Your task to perform on an android device: Show me recent news Image 0: 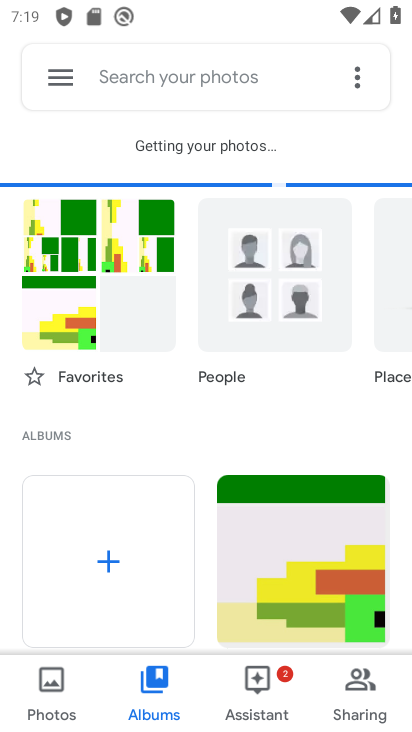
Step 0: press home button
Your task to perform on an android device: Show me recent news Image 1: 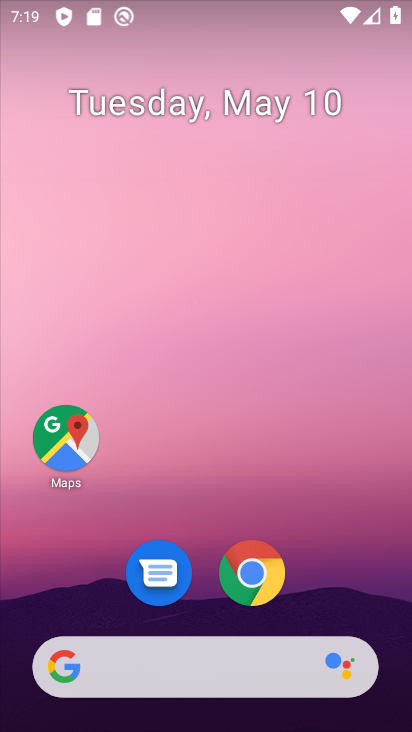
Step 1: drag from (354, 532) to (321, 146)
Your task to perform on an android device: Show me recent news Image 2: 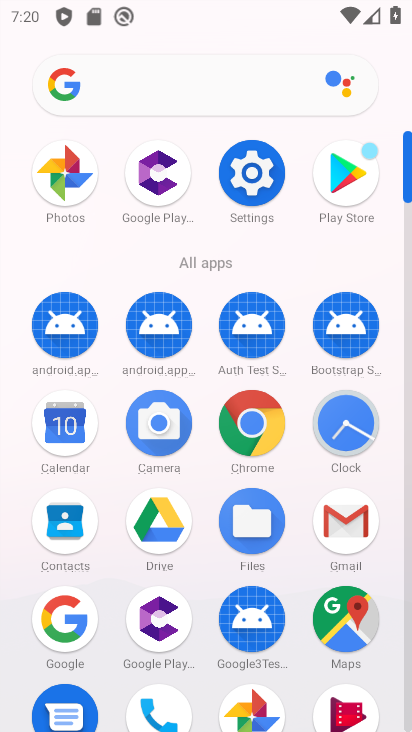
Step 2: drag from (302, 641) to (279, 358)
Your task to perform on an android device: Show me recent news Image 3: 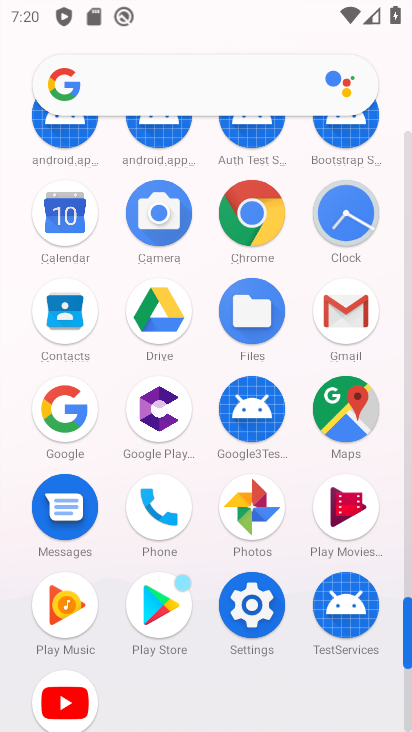
Step 3: click (260, 230)
Your task to perform on an android device: Show me recent news Image 4: 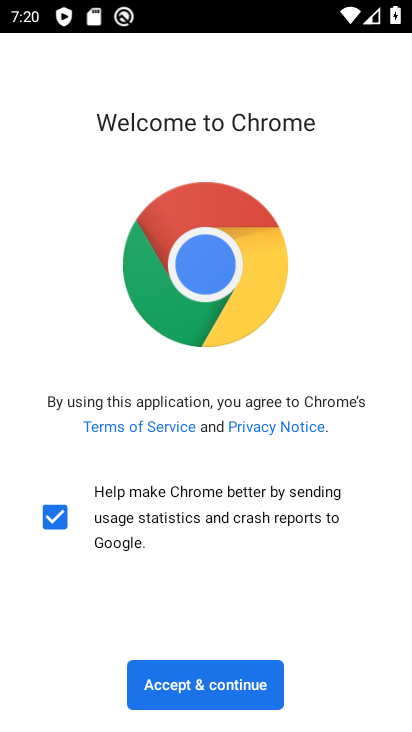
Step 4: click (241, 694)
Your task to perform on an android device: Show me recent news Image 5: 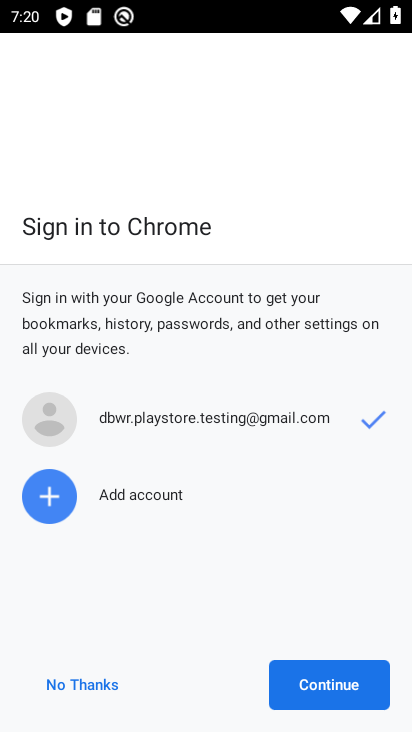
Step 5: click (310, 692)
Your task to perform on an android device: Show me recent news Image 6: 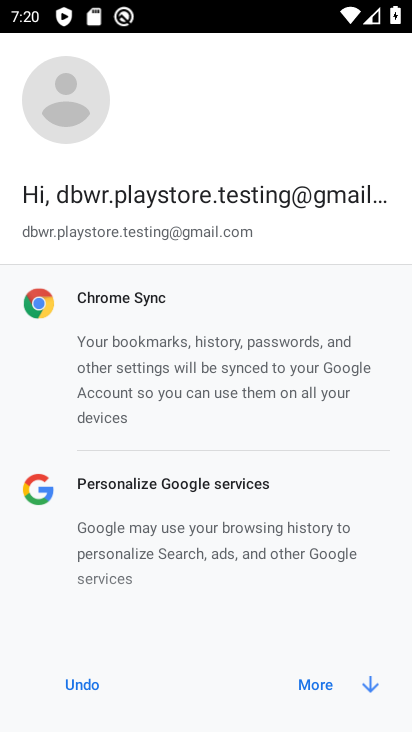
Step 6: click (311, 688)
Your task to perform on an android device: Show me recent news Image 7: 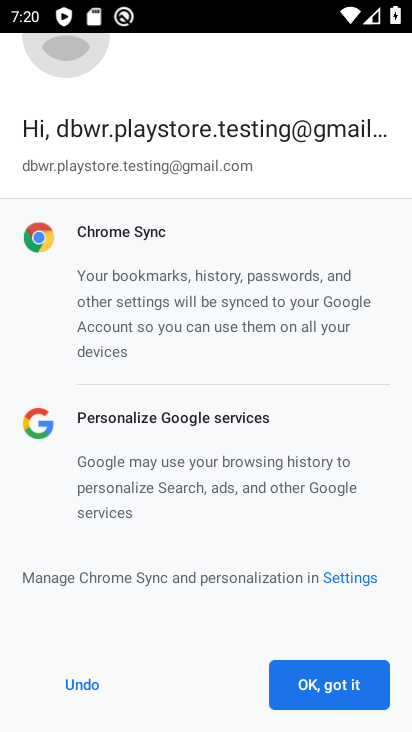
Step 7: click (311, 688)
Your task to perform on an android device: Show me recent news Image 8: 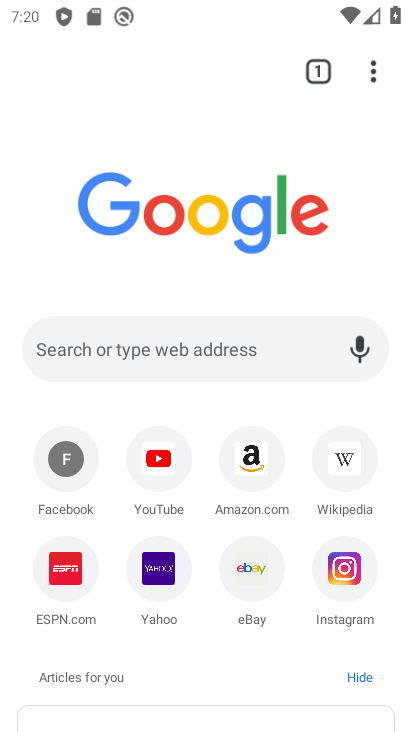
Step 8: click (208, 365)
Your task to perform on an android device: Show me recent news Image 9: 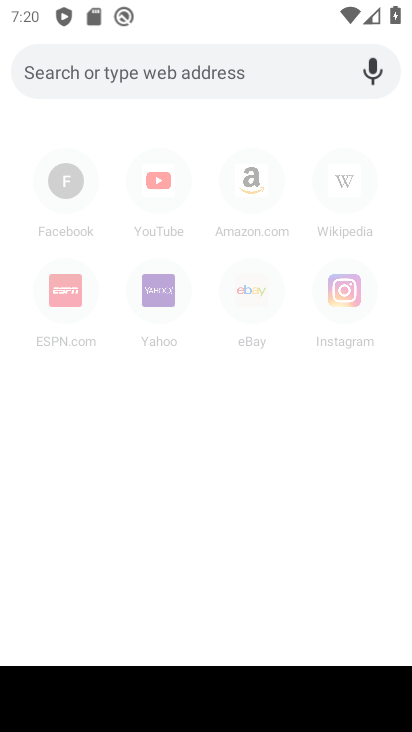
Step 9: type "recent news"
Your task to perform on an android device: Show me recent news Image 10: 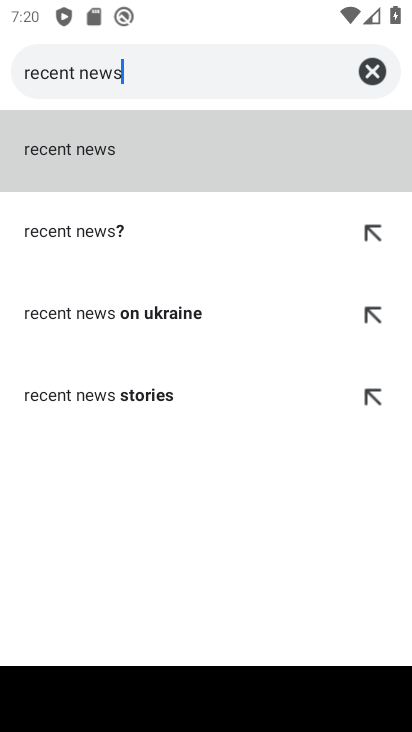
Step 10: click (55, 150)
Your task to perform on an android device: Show me recent news Image 11: 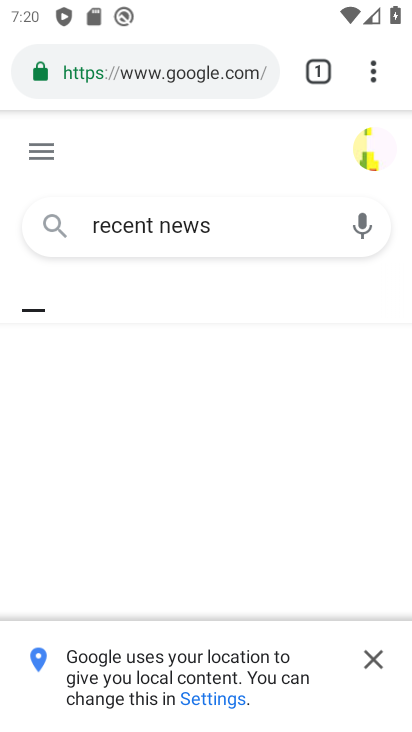
Step 11: click (375, 658)
Your task to perform on an android device: Show me recent news Image 12: 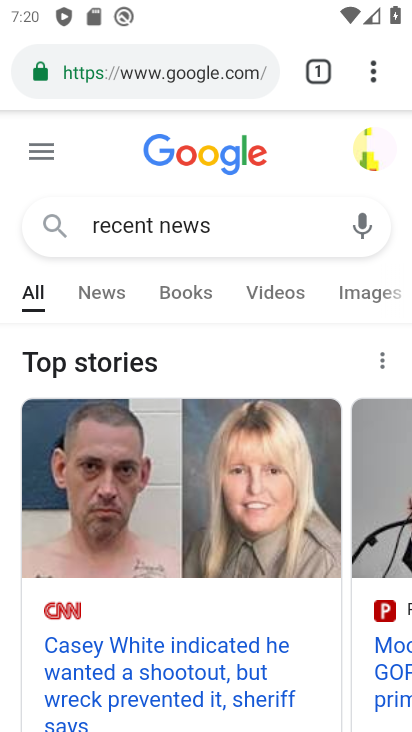
Step 12: task complete